Your task to perform on an android device: open app "Adobe Acrobat Reader" (install if not already installed), go to login, and select forgot password Image 0: 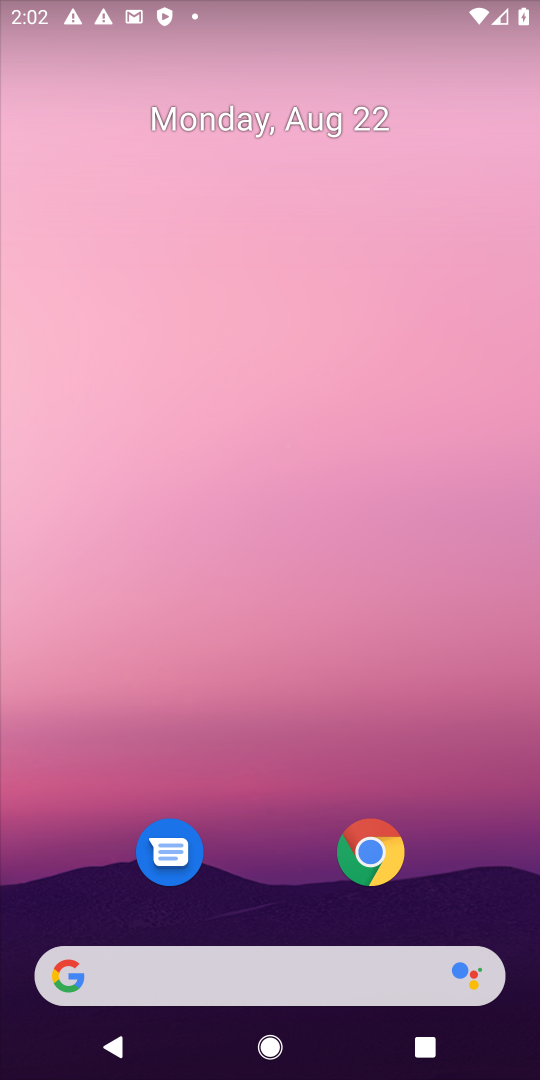
Step 0: drag from (283, 976) to (227, 77)
Your task to perform on an android device: open app "Adobe Acrobat Reader" (install if not already installed), go to login, and select forgot password Image 1: 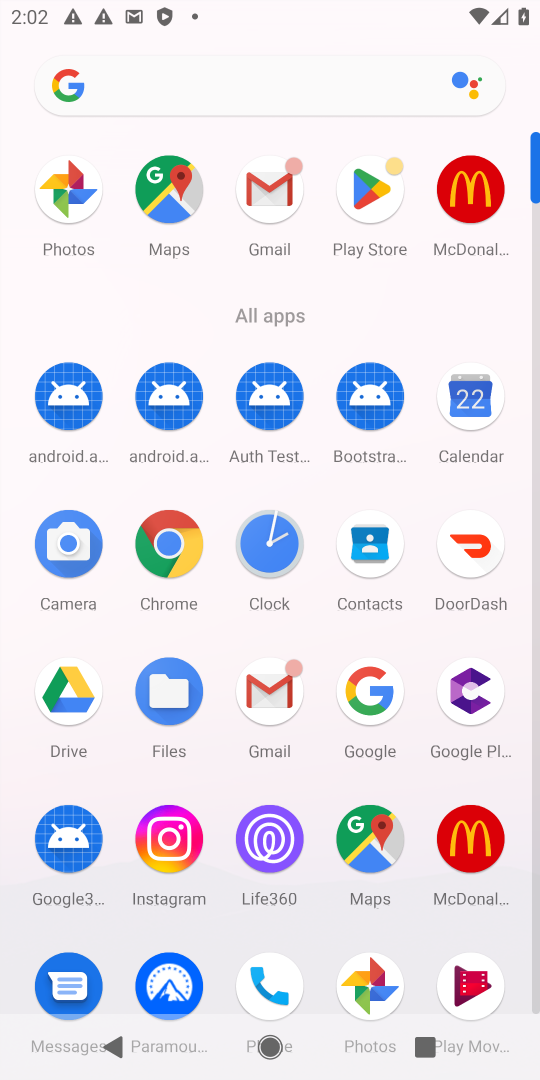
Step 1: click (372, 192)
Your task to perform on an android device: open app "Adobe Acrobat Reader" (install if not already installed), go to login, and select forgot password Image 2: 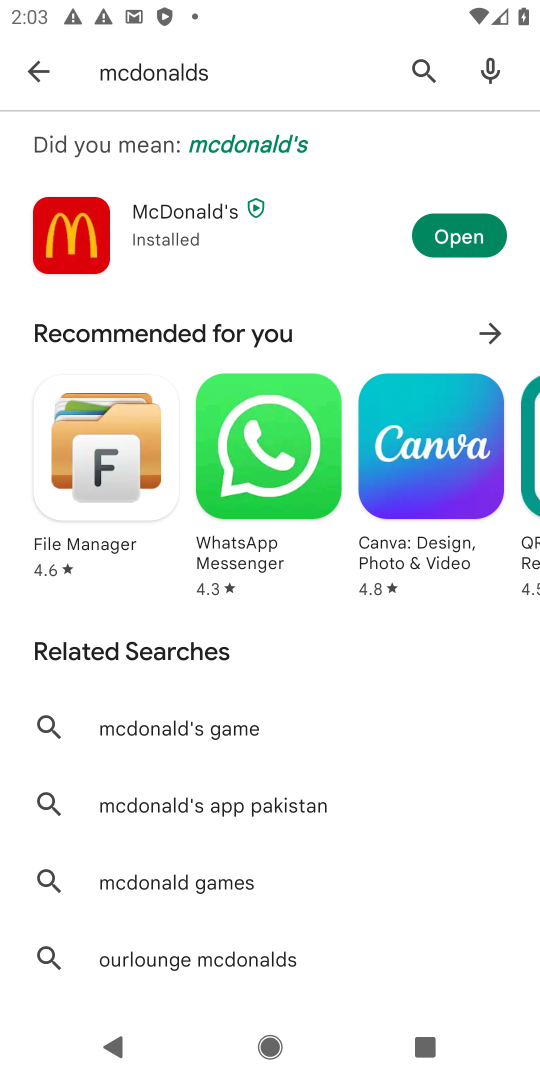
Step 2: click (429, 83)
Your task to perform on an android device: open app "Adobe Acrobat Reader" (install if not already installed), go to login, and select forgot password Image 3: 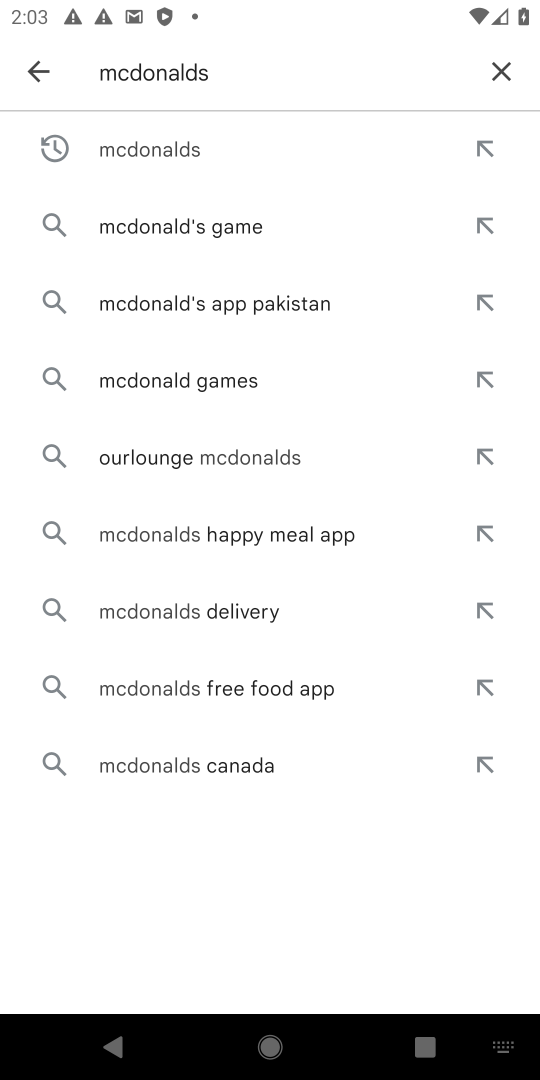
Step 3: click (504, 68)
Your task to perform on an android device: open app "Adobe Acrobat Reader" (install if not already installed), go to login, and select forgot password Image 4: 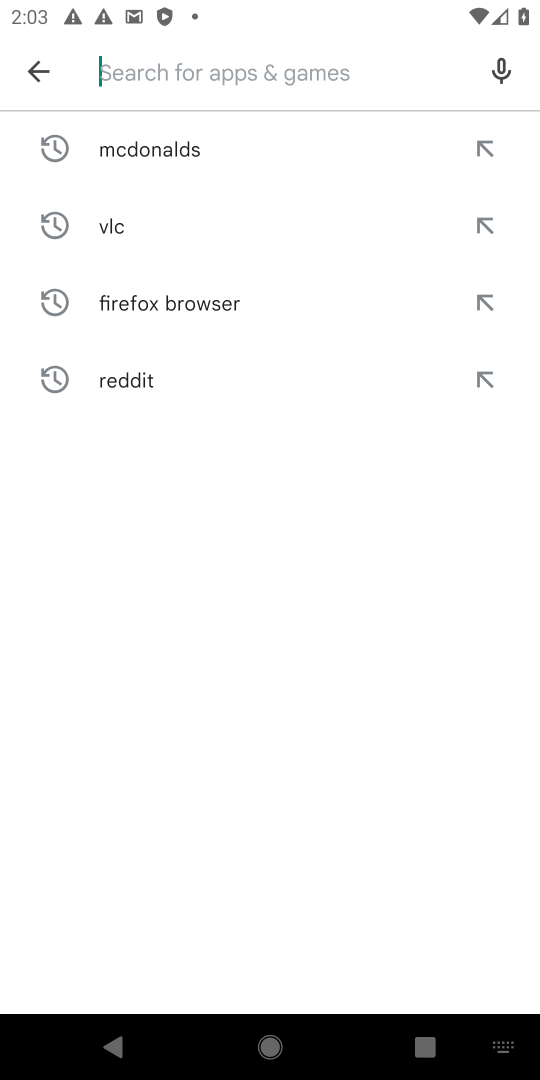
Step 4: type "adobe acrobat reader"
Your task to perform on an android device: open app "Adobe Acrobat Reader" (install if not already installed), go to login, and select forgot password Image 5: 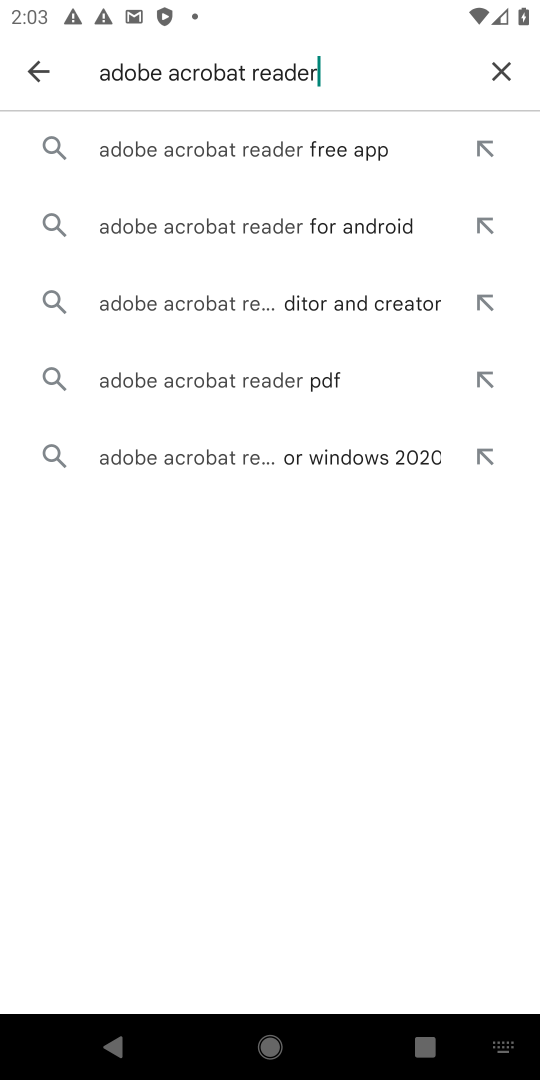
Step 5: click (283, 149)
Your task to perform on an android device: open app "Adobe Acrobat Reader" (install if not already installed), go to login, and select forgot password Image 6: 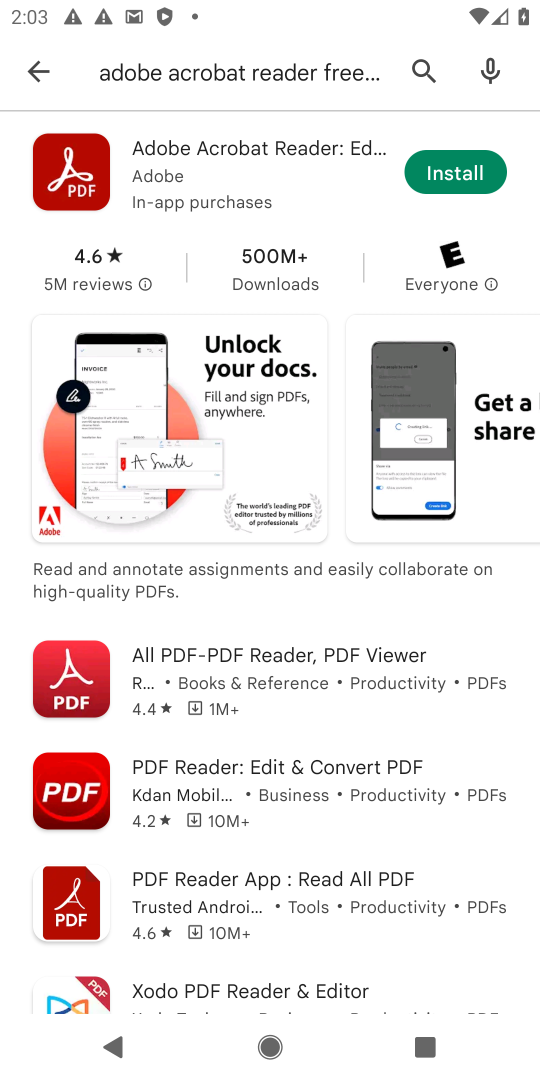
Step 6: click (439, 176)
Your task to perform on an android device: open app "Adobe Acrobat Reader" (install if not already installed), go to login, and select forgot password Image 7: 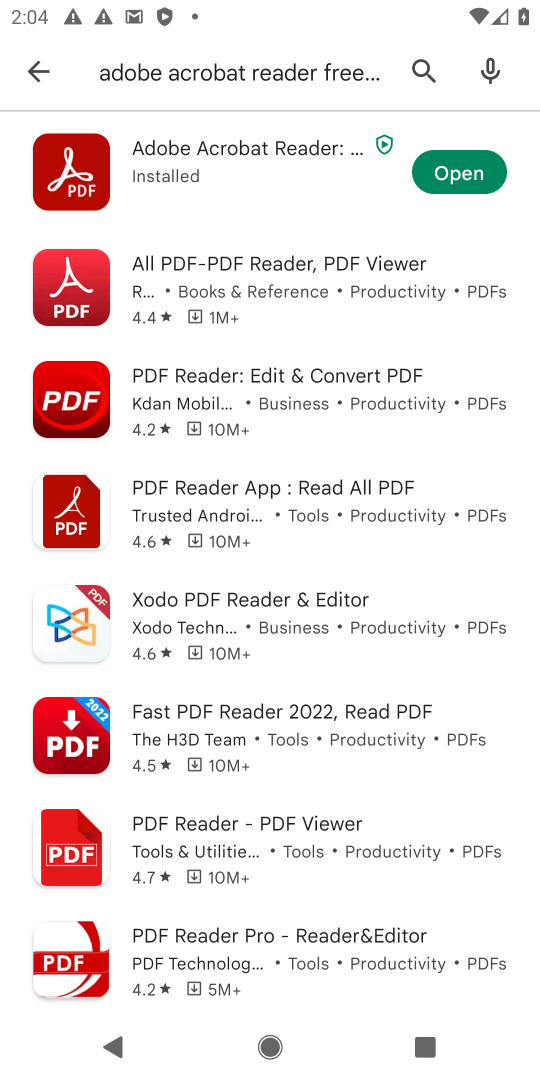
Step 7: click (477, 167)
Your task to perform on an android device: open app "Adobe Acrobat Reader" (install if not already installed), go to login, and select forgot password Image 8: 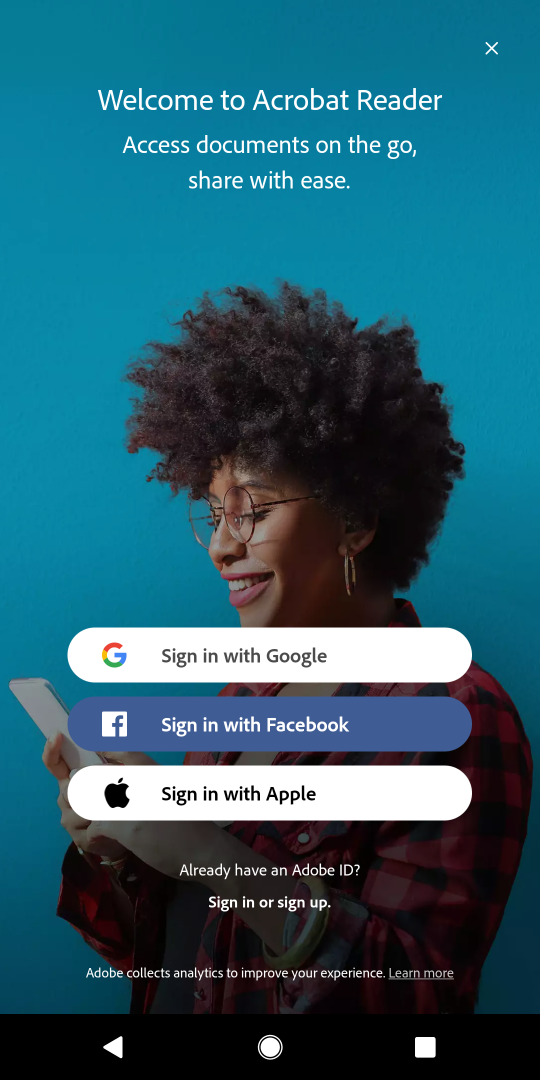
Step 8: click (230, 906)
Your task to perform on an android device: open app "Adobe Acrobat Reader" (install if not already installed), go to login, and select forgot password Image 9: 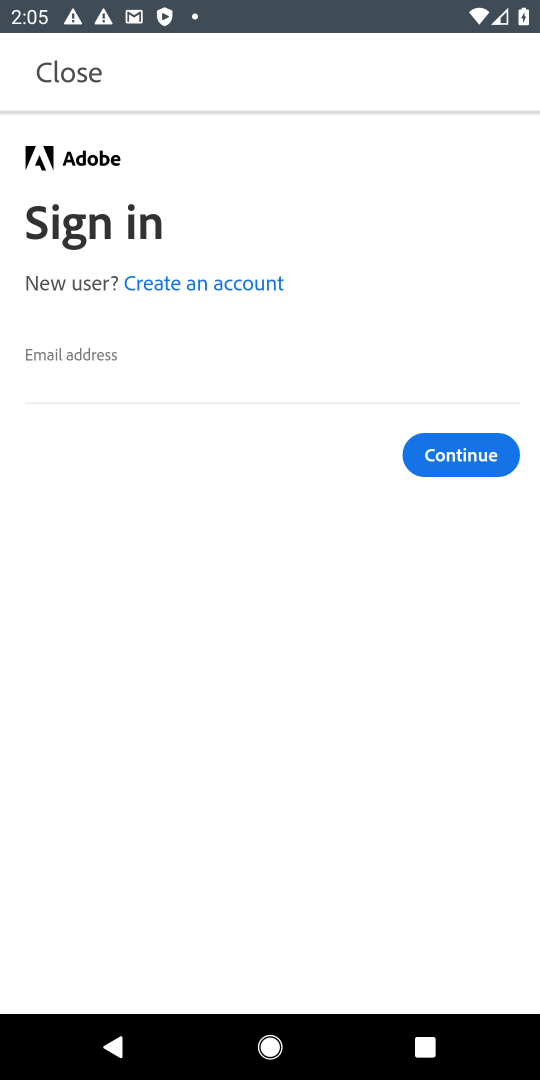
Step 9: task complete